Your task to perform on an android device: turn off location Image 0: 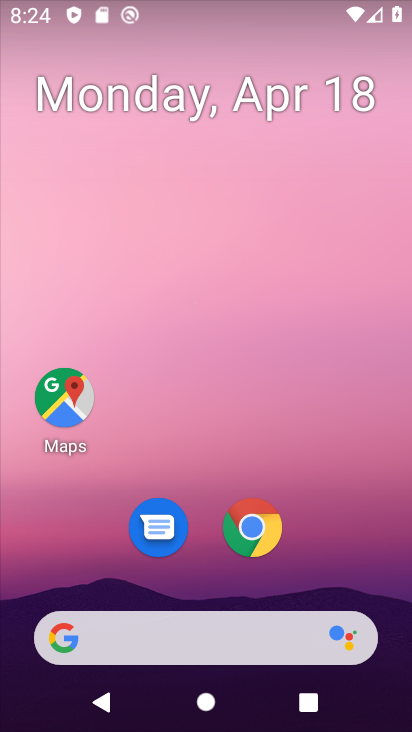
Step 0: drag from (325, 563) to (338, 87)
Your task to perform on an android device: turn off location Image 1: 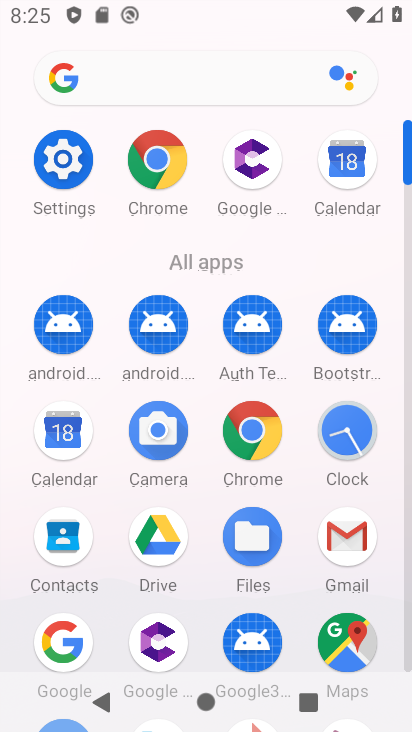
Step 1: click (66, 164)
Your task to perform on an android device: turn off location Image 2: 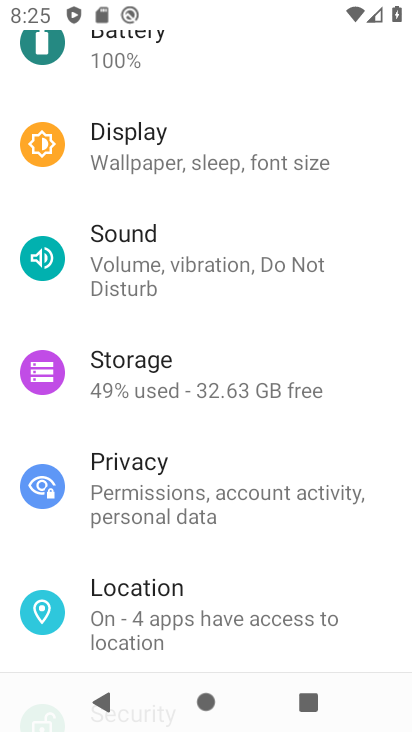
Step 2: drag from (353, 112) to (361, 172)
Your task to perform on an android device: turn off location Image 3: 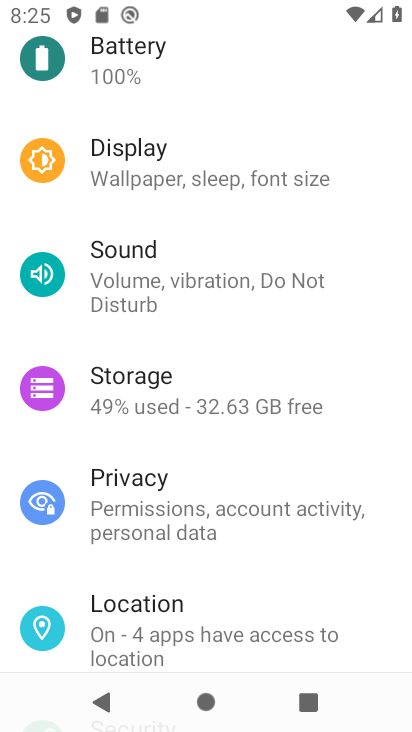
Step 3: click (138, 609)
Your task to perform on an android device: turn off location Image 4: 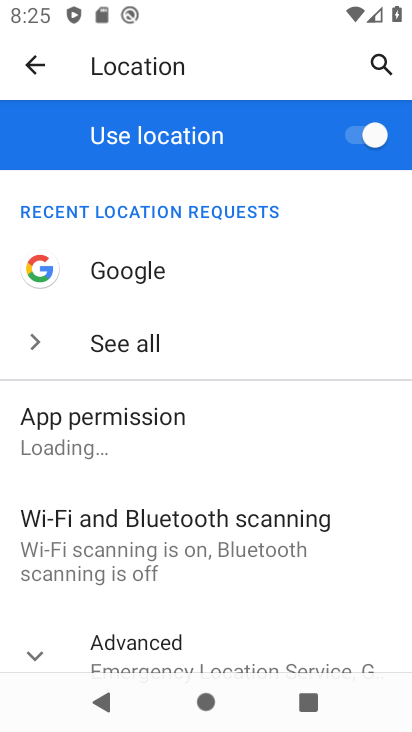
Step 4: click (357, 135)
Your task to perform on an android device: turn off location Image 5: 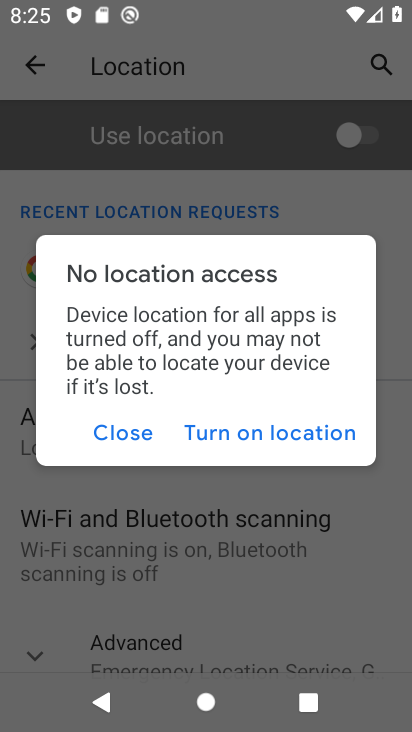
Step 5: click (120, 431)
Your task to perform on an android device: turn off location Image 6: 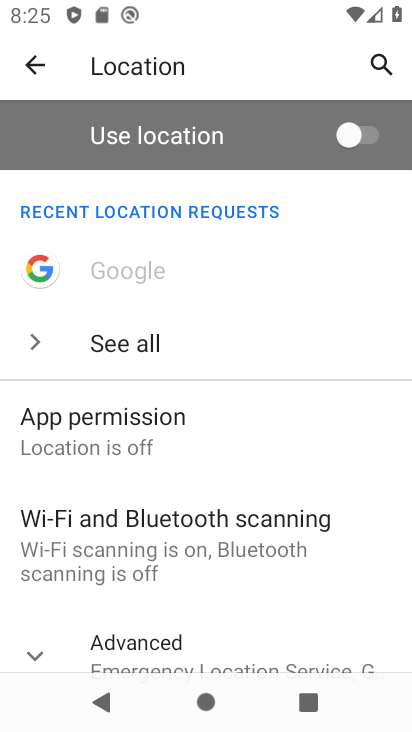
Step 6: task complete